Your task to perform on an android device: Show me the alarms in the clock app Image 0: 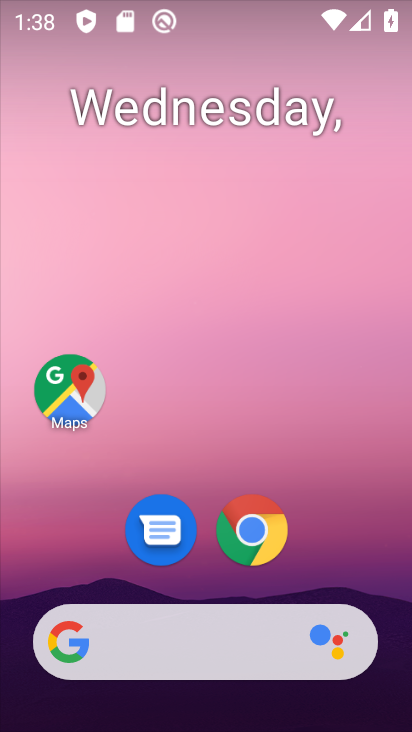
Step 0: drag from (165, 604) to (291, 44)
Your task to perform on an android device: Show me the alarms in the clock app Image 1: 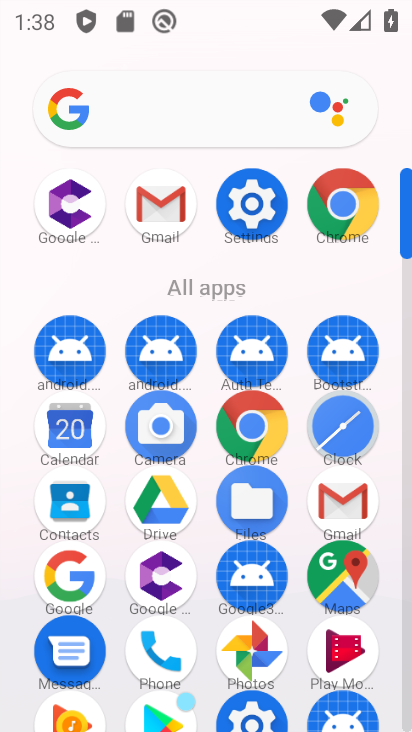
Step 1: click (354, 426)
Your task to perform on an android device: Show me the alarms in the clock app Image 2: 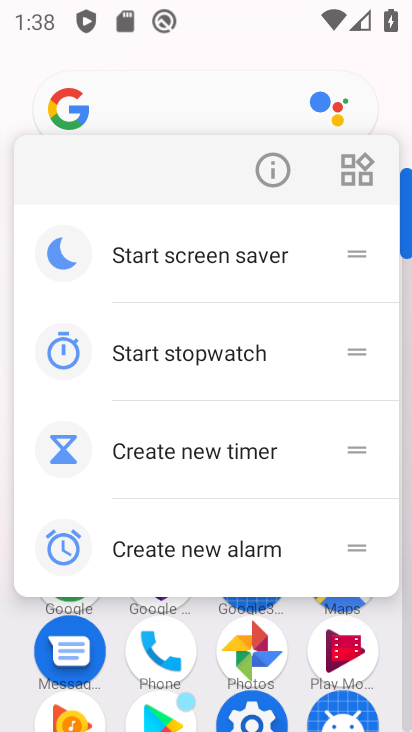
Step 2: press back button
Your task to perform on an android device: Show me the alarms in the clock app Image 3: 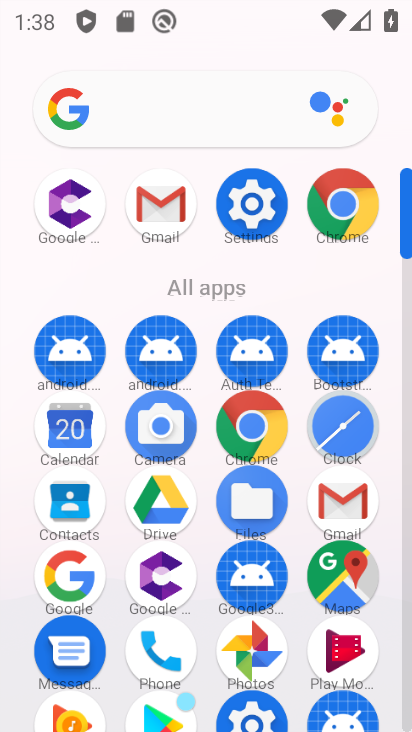
Step 3: click (336, 447)
Your task to perform on an android device: Show me the alarms in the clock app Image 4: 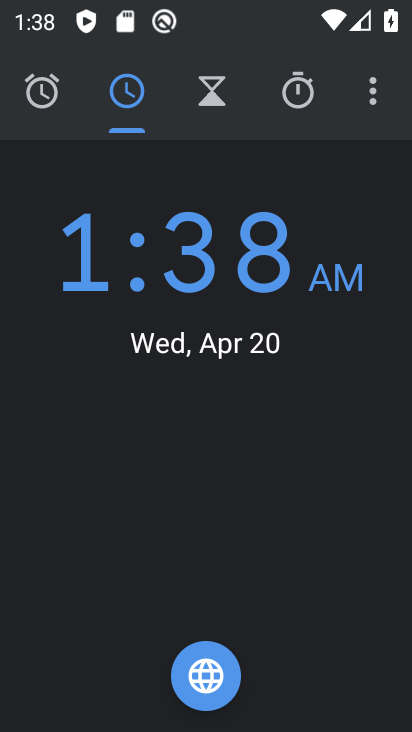
Step 4: click (35, 98)
Your task to perform on an android device: Show me the alarms in the clock app Image 5: 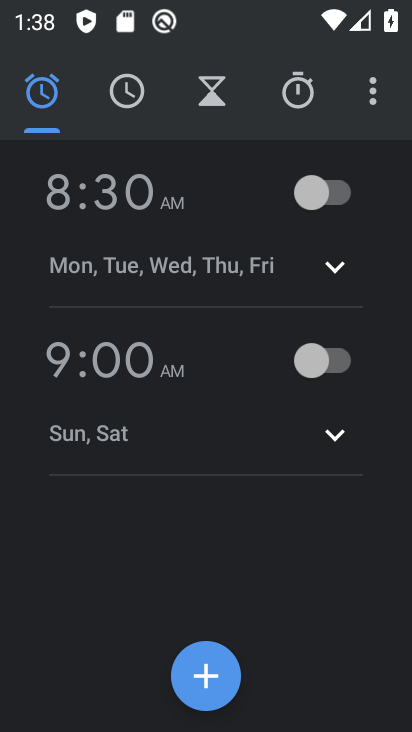
Step 5: task complete